Your task to perform on an android device: turn on the 24-hour format for clock Image 0: 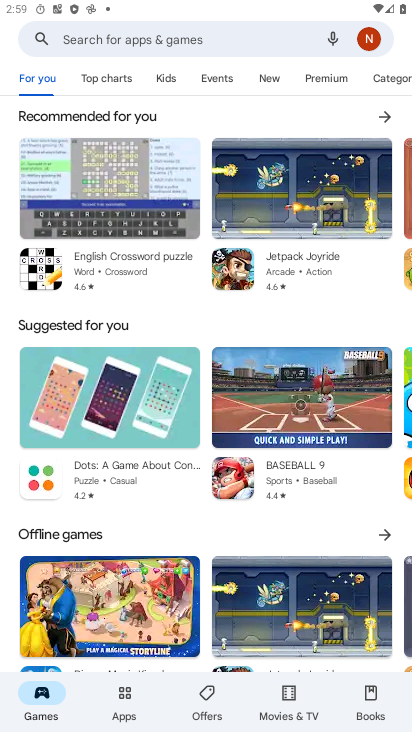
Step 0: press home button
Your task to perform on an android device: turn on the 24-hour format for clock Image 1: 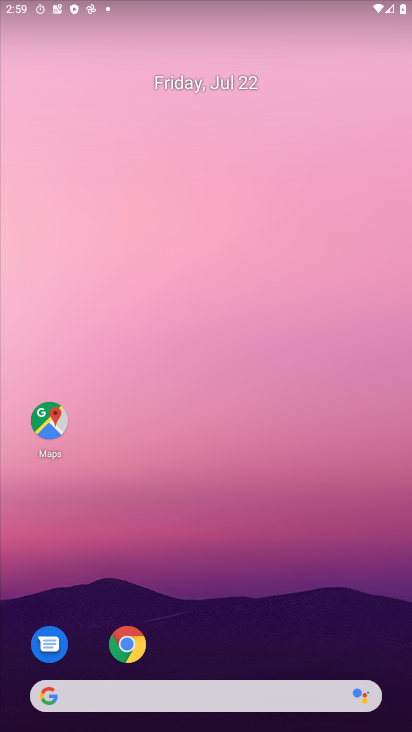
Step 1: drag from (163, 343) to (163, 258)
Your task to perform on an android device: turn on the 24-hour format for clock Image 2: 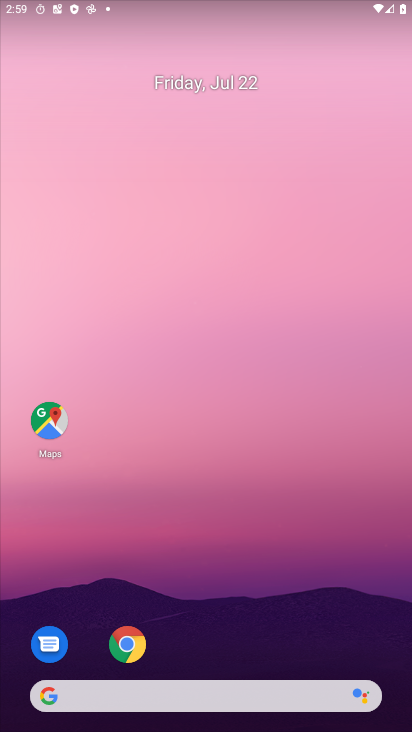
Step 2: drag from (195, 362) to (208, 254)
Your task to perform on an android device: turn on the 24-hour format for clock Image 3: 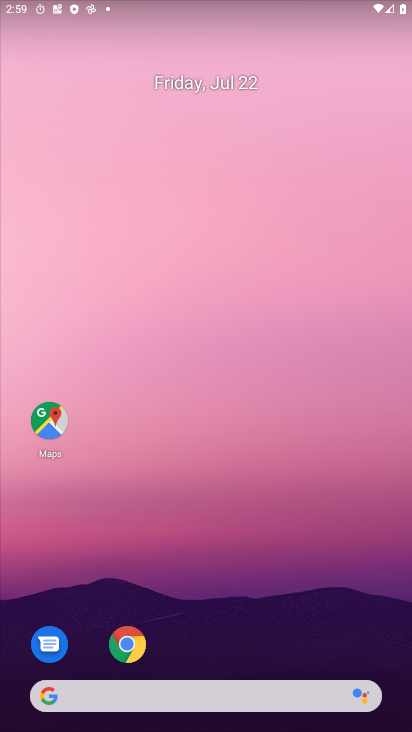
Step 3: drag from (184, 626) to (214, 174)
Your task to perform on an android device: turn on the 24-hour format for clock Image 4: 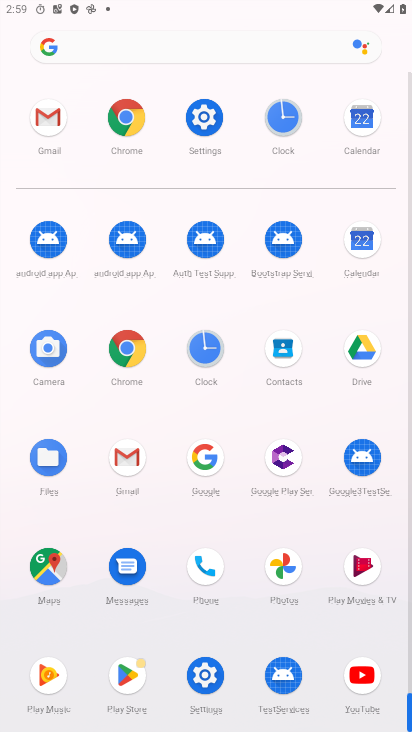
Step 4: click (200, 364)
Your task to perform on an android device: turn on the 24-hour format for clock Image 5: 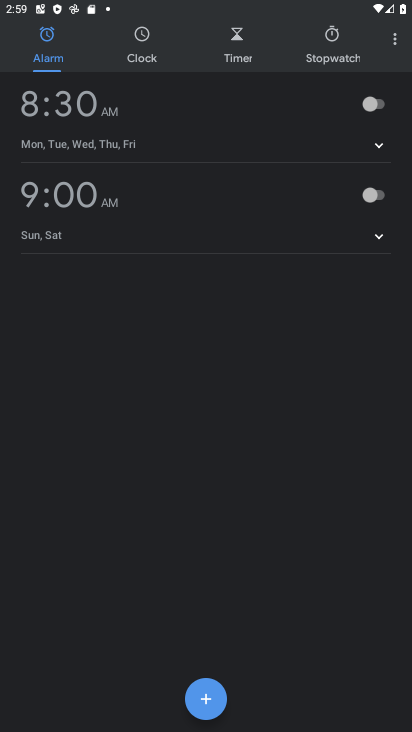
Step 5: click (400, 46)
Your task to perform on an android device: turn on the 24-hour format for clock Image 6: 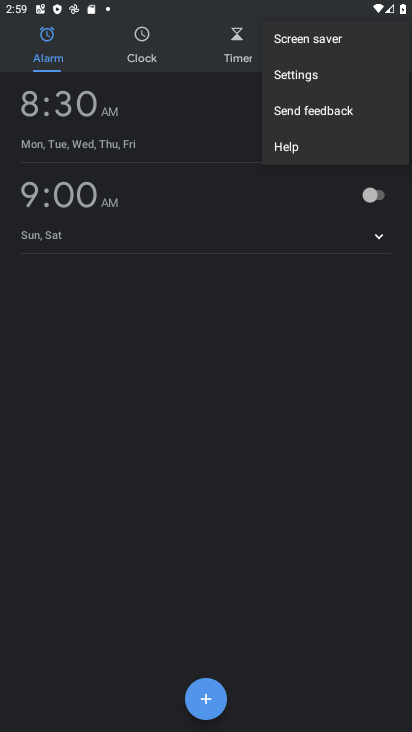
Step 6: click (307, 81)
Your task to perform on an android device: turn on the 24-hour format for clock Image 7: 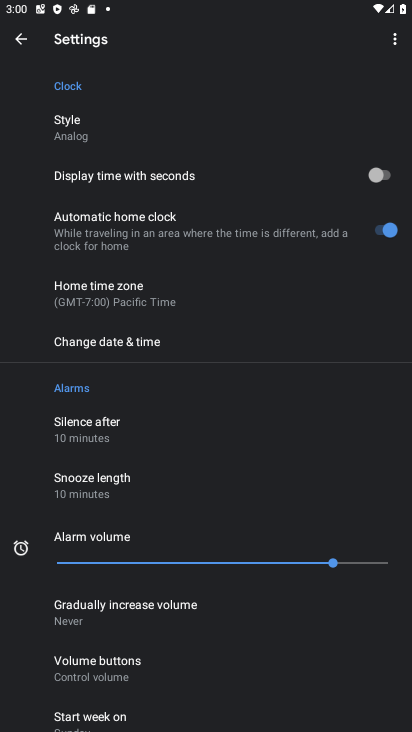
Step 7: click (199, 343)
Your task to perform on an android device: turn on the 24-hour format for clock Image 8: 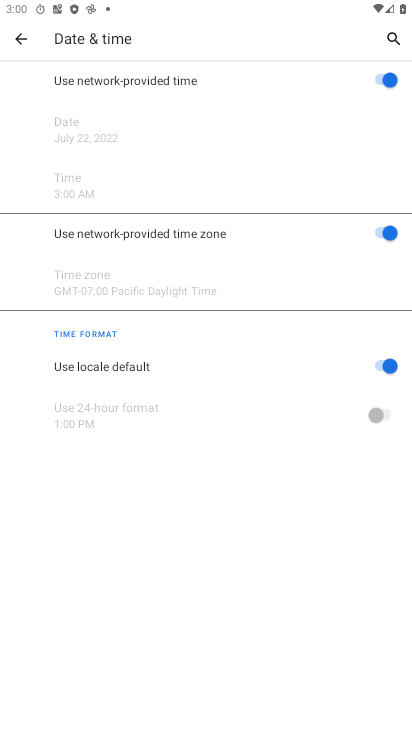
Step 8: task complete